Your task to perform on an android device: find photos in the google photos app Image 0: 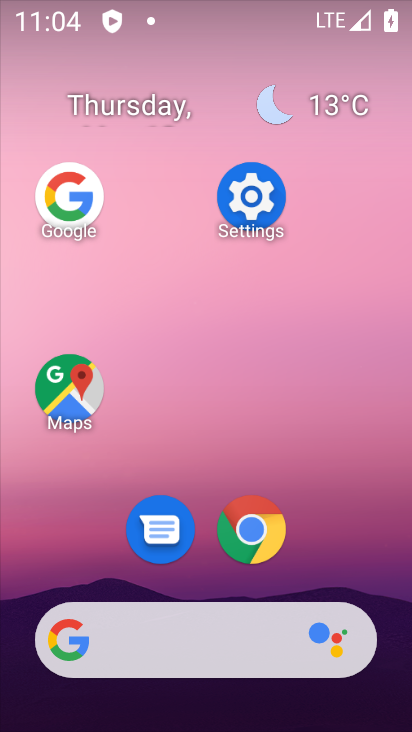
Step 0: drag from (347, 555) to (408, 103)
Your task to perform on an android device: find photos in the google photos app Image 1: 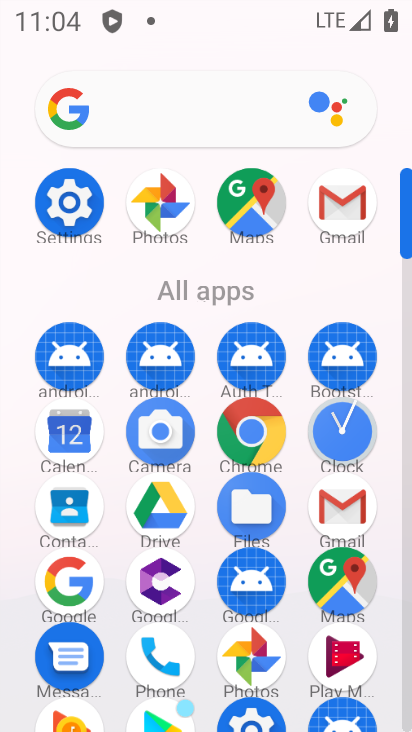
Step 1: click (171, 203)
Your task to perform on an android device: find photos in the google photos app Image 2: 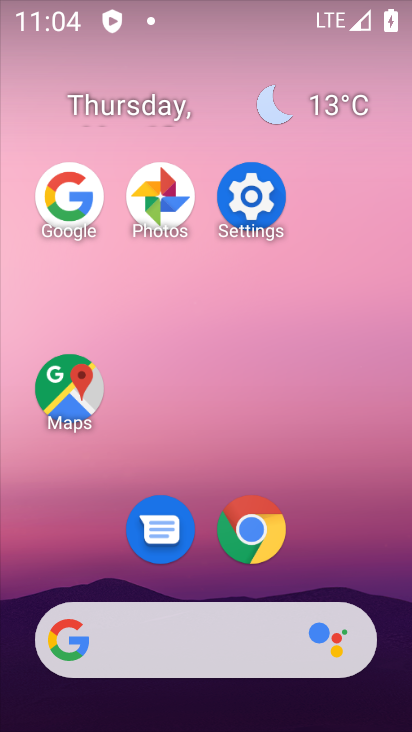
Step 2: click (178, 203)
Your task to perform on an android device: find photos in the google photos app Image 3: 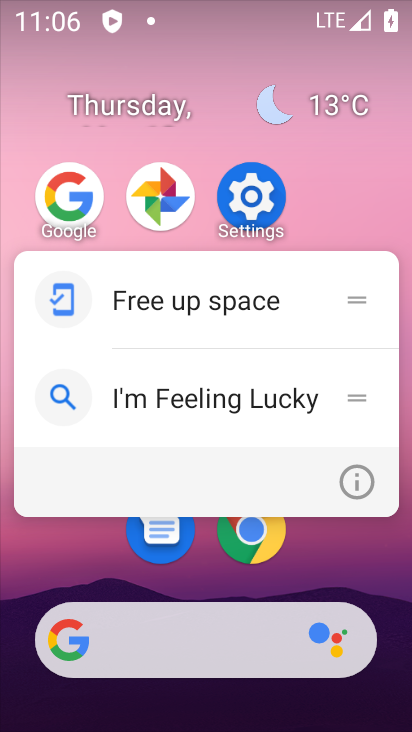
Step 3: click (173, 217)
Your task to perform on an android device: find photos in the google photos app Image 4: 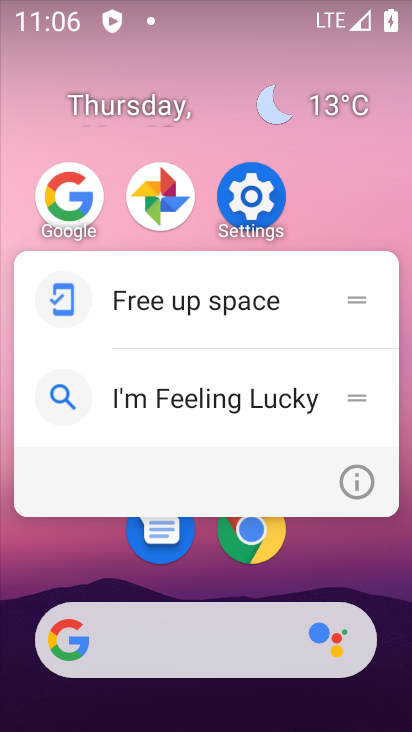
Step 4: click (173, 218)
Your task to perform on an android device: find photos in the google photos app Image 5: 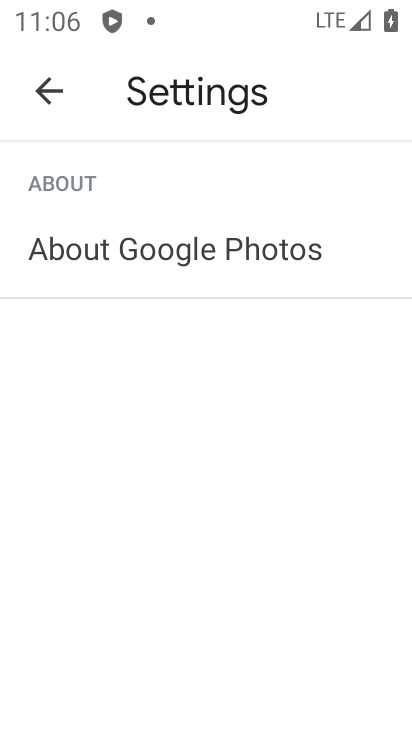
Step 5: click (46, 88)
Your task to perform on an android device: find photos in the google photos app Image 6: 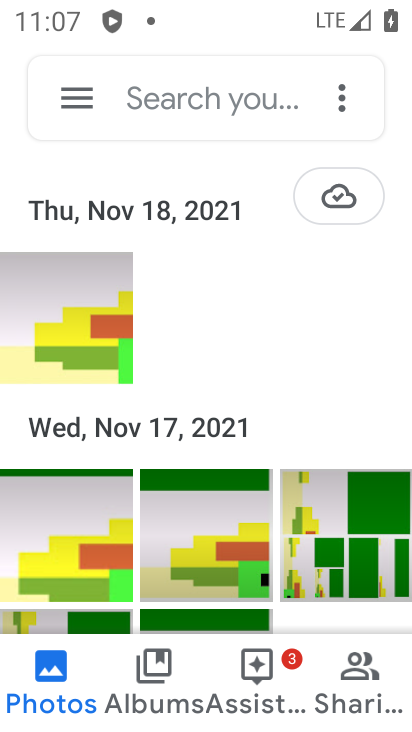
Step 6: click (69, 445)
Your task to perform on an android device: find photos in the google photos app Image 7: 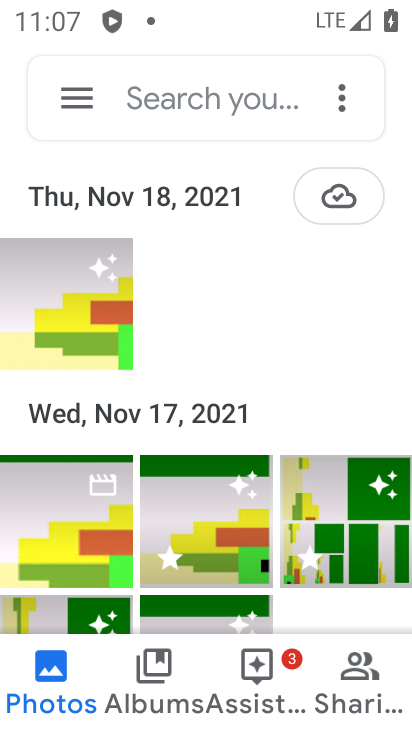
Step 7: task complete